Your task to perform on an android device: open app "Yahoo Mail" Image 0: 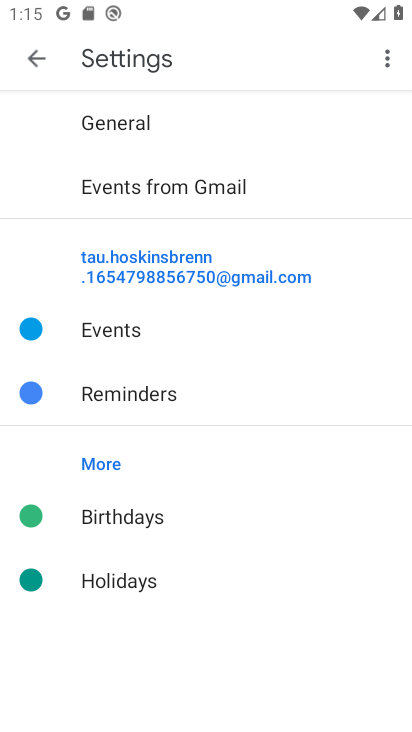
Step 0: press home button
Your task to perform on an android device: open app "Yahoo Mail" Image 1: 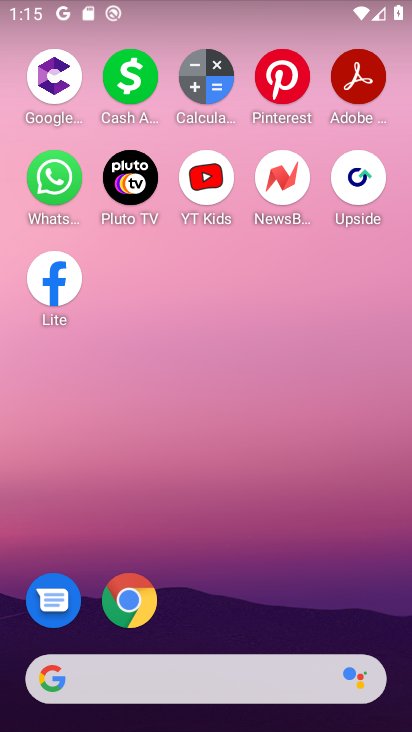
Step 1: drag from (202, 639) to (191, 20)
Your task to perform on an android device: open app "Yahoo Mail" Image 2: 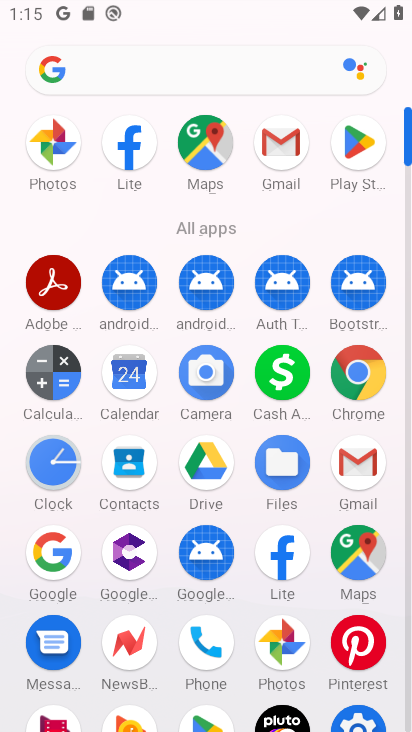
Step 2: click (361, 145)
Your task to perform on an android device: open app "Yahoo Mail" Image 3: 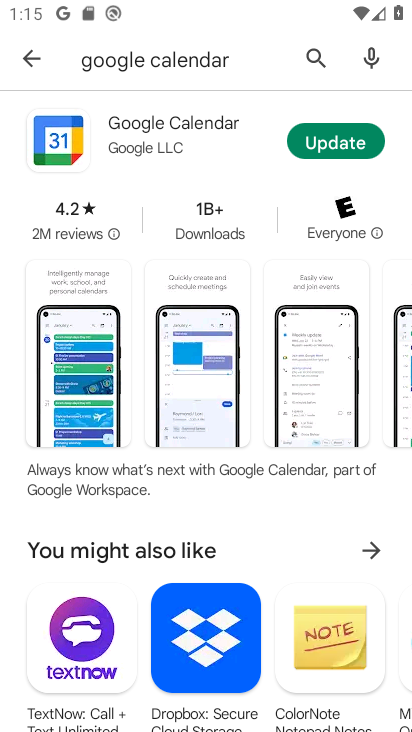
Step 3: click (314, 58)
Your task to perform on an android device: open app "Yahoo Mail" Image 4: 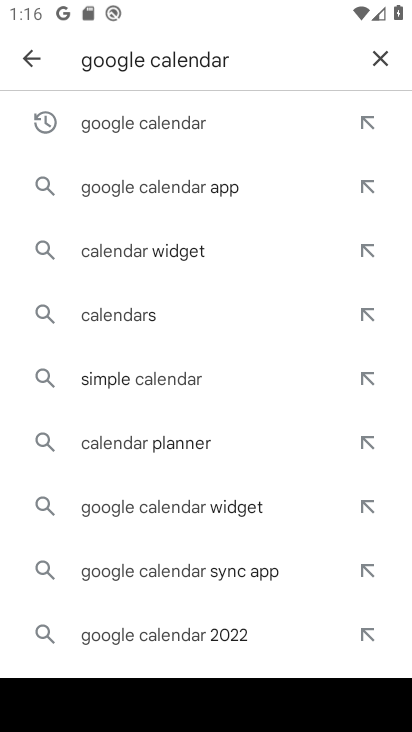
Step 4: click (382, 59)
Your task to perform on an android device: open app "Yahoo Mail" Image 5: 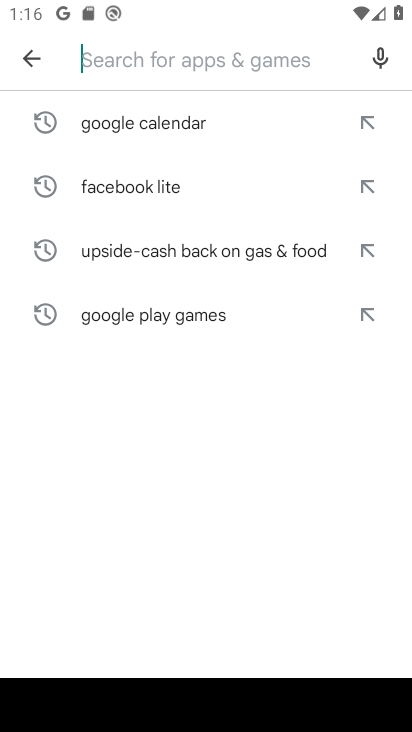
Step 5: type "Yahoo Mail"
Your task to perform on an android device: open app "Yahoo Mail" Image 6: 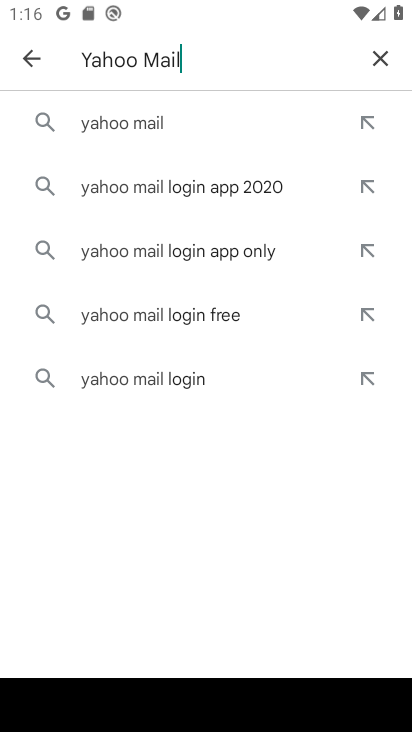
Step 6: click (143, 128)
Your task to perform on an android device: open app "Yahoo Mail" Image 7: 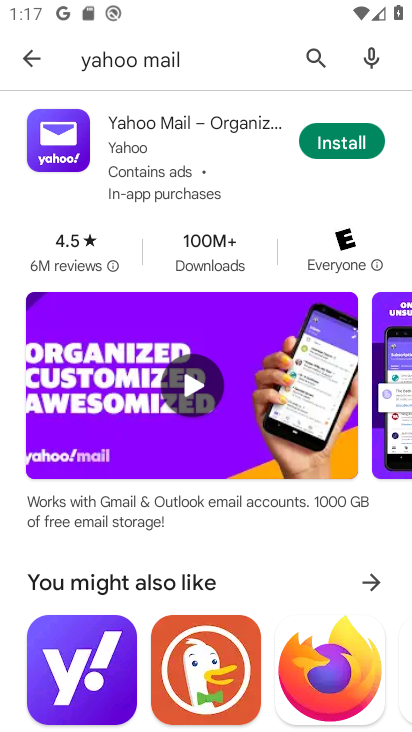
Step 7: task complete